Your task to perform on an android device: turn off sleep mode Image 0: 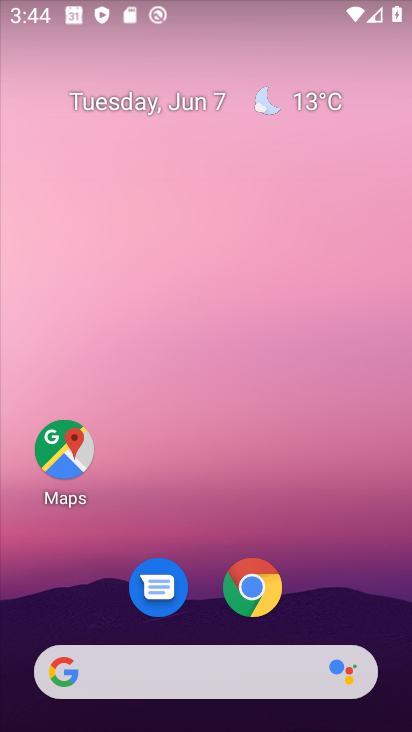
Step 0: drag from (245, 586) to (334, 74)
Your task to perform on an android device: turn off sleep mode Image 1: 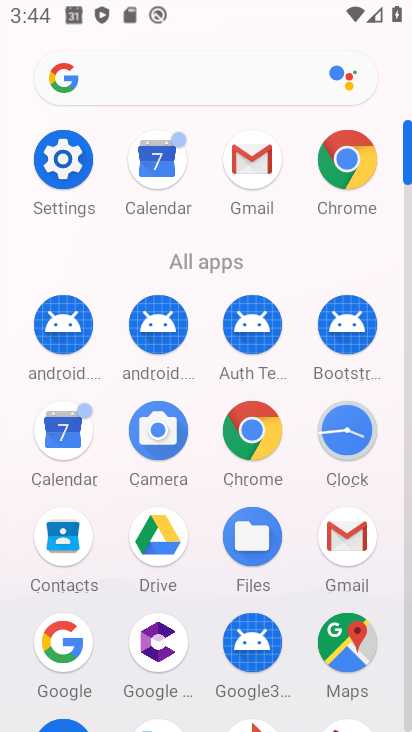
Step 1: click (93, 172)
Your task to perform on an android device: turn off sleep mode Image 2: 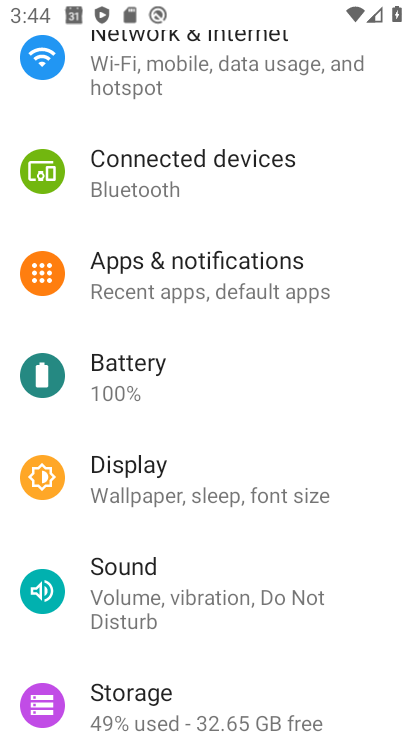
Step 2: click (179, 473)
Your task to perform on an android device: turn off sleep mode Image 3: 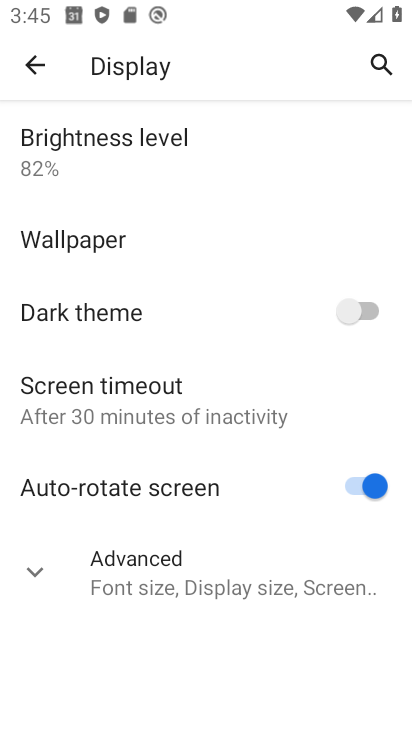
Step 3: task complete